Your task to perform on an android device: Open Maps and search for coffee Image 0: 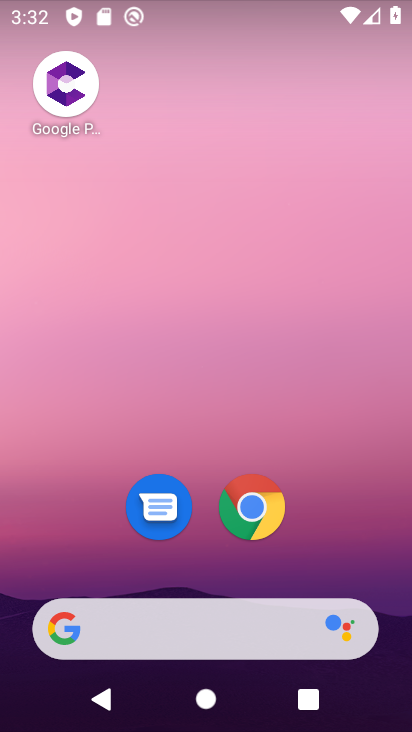
Step 0: drag from (367, 491) to (298, 117)
Your task to perform on an android device: Open Maps and search for coffee Image 1: 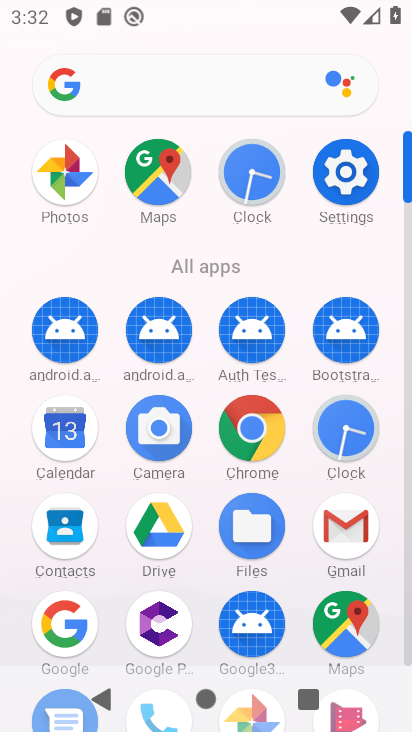
Step 1: drag from (380, 600) to (303, 273)
Your task to perform on an android device: Open Maps and search for coffee Image 2: 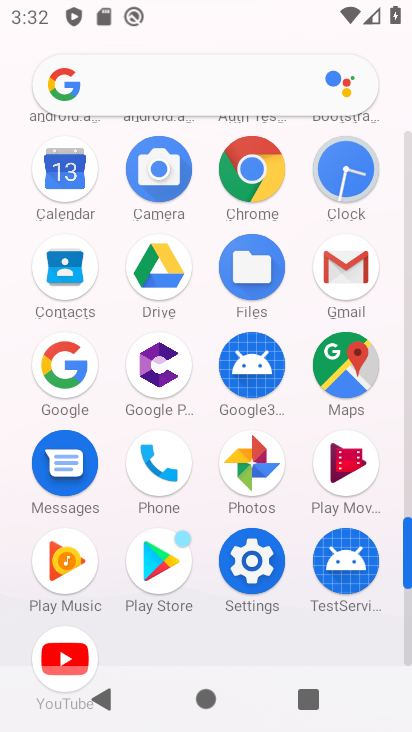
Step 2: click (351, 380)
Your task to perform on an android device: Open Maps and search for coffee Image 3: 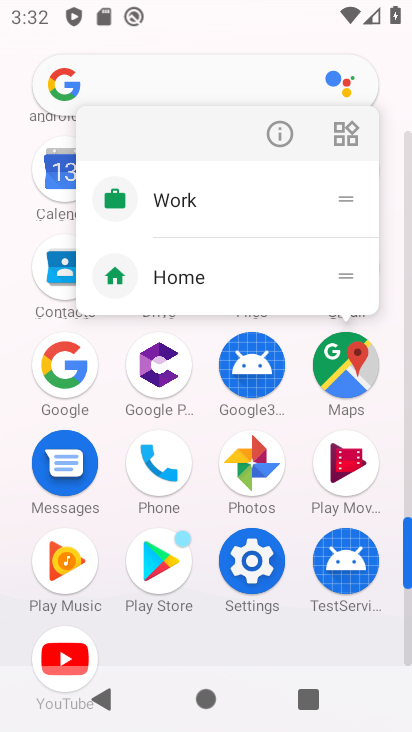
Step 3: click (351, 380)
Your task to perform on an android device: Open Maps and search for coffee Image 4: 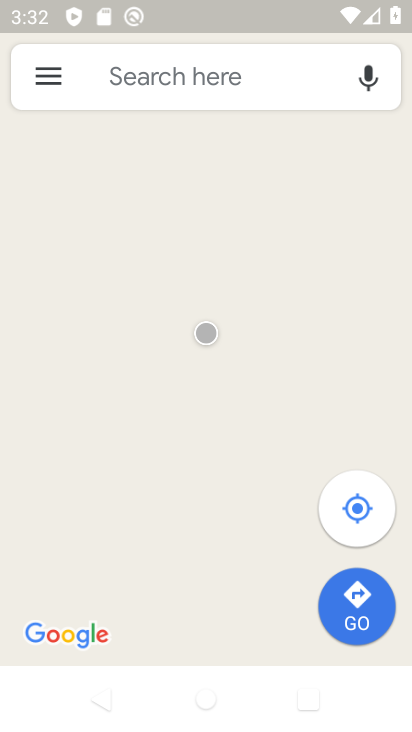
Step 4: click (192, 90)
Your task to perform on an android device: Open Maps and search for coffee Image 5: 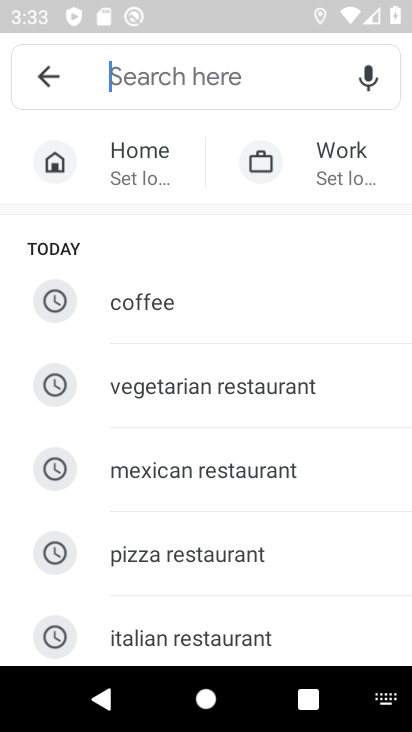
Step 5: type "coffee"
Your task to perform on an android device: Open Maps and search for coffee Image 6: 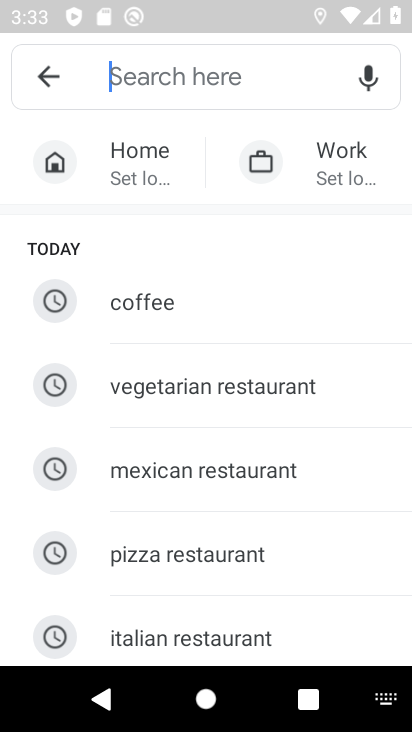
Step 6: click (131, 294)
Your task to perform on an android device: Open Maps and search for coffee Image 7: 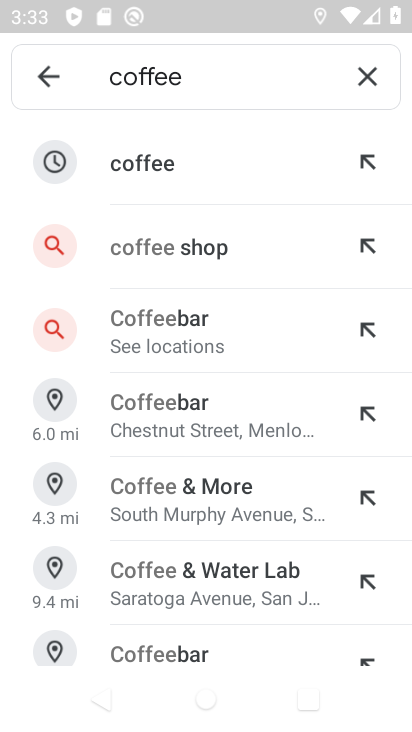
Step 7: click (125, 178)
Your task to perform on an android device: Open Maps and search for coffee Image 8: 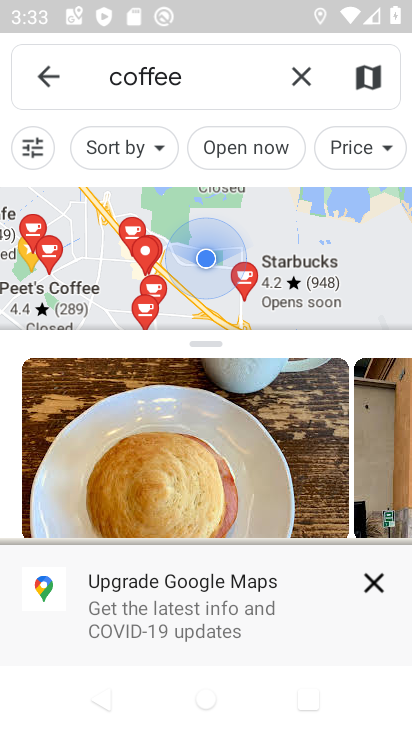
Step 8: task complete